Your task to perform on an android device: Go to display settings Image 0: 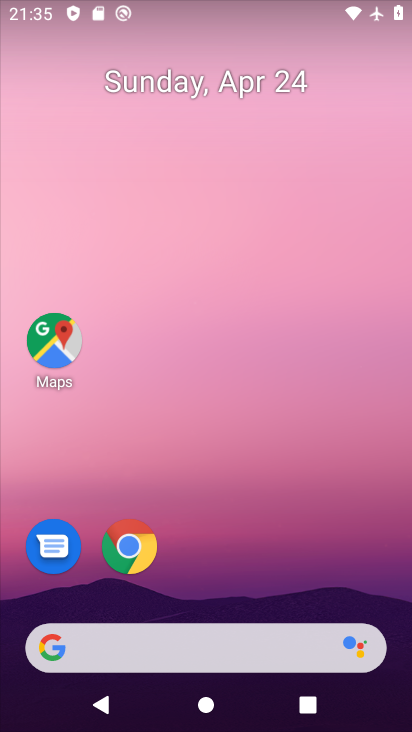
Step 0: drag from (295, 558) to (337, 208)
Your task to perform on an android device: Go to display settings Image 1: 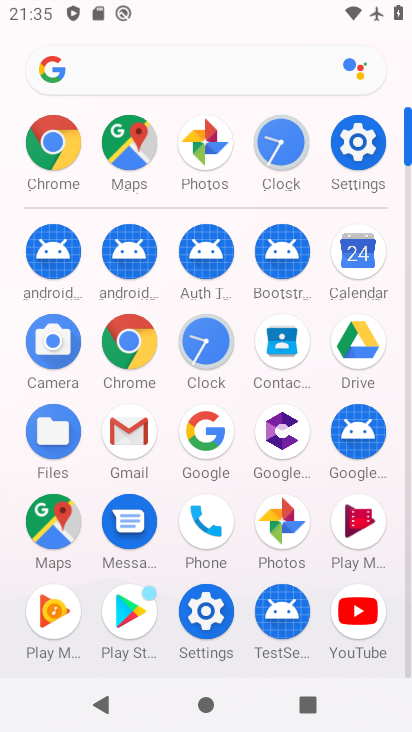
Step 1: click (354, 137)
Your task to perform on an android device: Go to display settings Image 2: 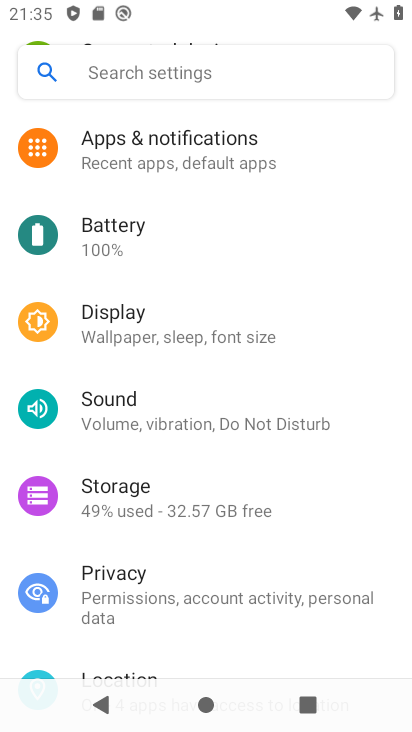
Step 2: click (170, 327)
Your task to perform on an android device: Go to display settings Image 3: 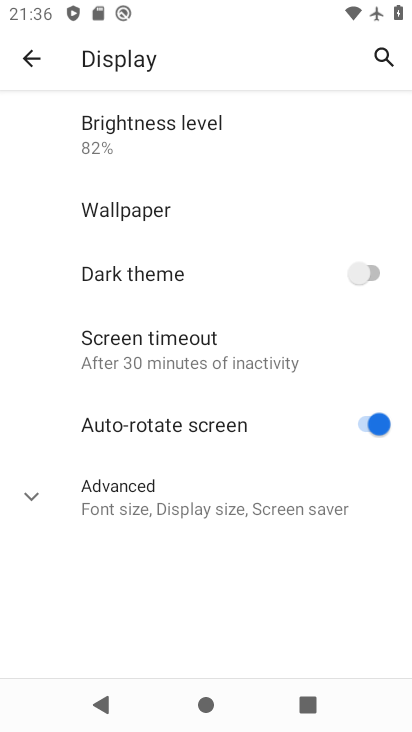
Step 3: task complete